Your task to perform on an android device: manage bookmarks in the chrome app Image 0: 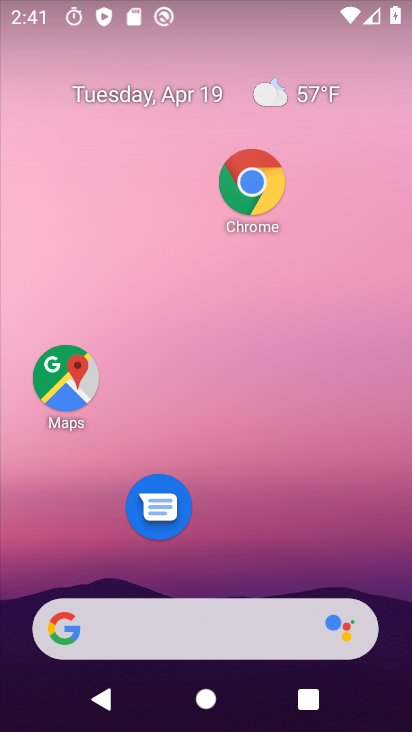
Step 0: click (245, 179)
Your task to perform on an android device: manage bookmarks in the chrome app Image 1: 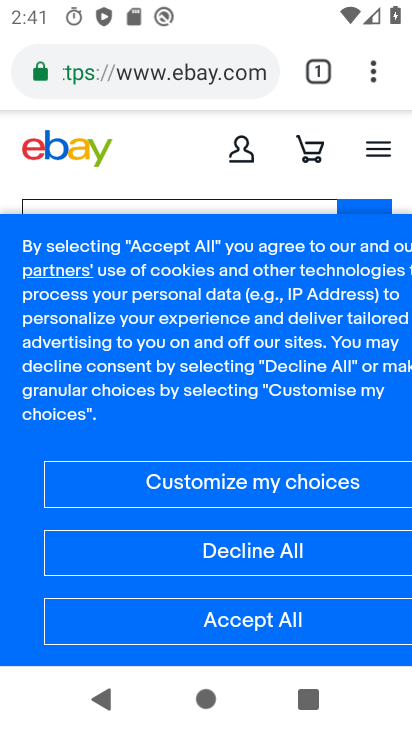
Step 1: click (374, 82)
Your task to perform on an android device: manage bookmarks in the chrome app Image 2: 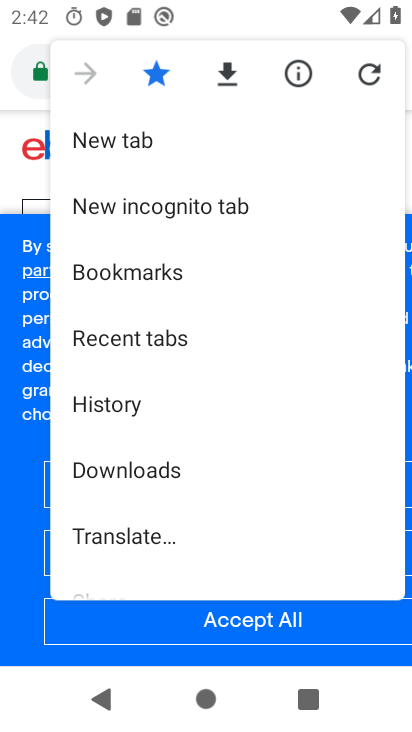
Step 2: click (224, 273)
Your task to perform on an android device: manage bookmarks in the chrome app Image 3: 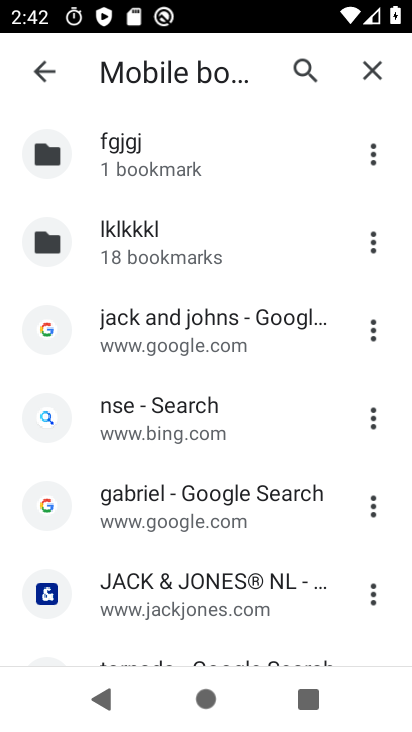
Step 3: task complete